Your task to perform on an android device: Open calendar and show me the first week of next month Image 0: 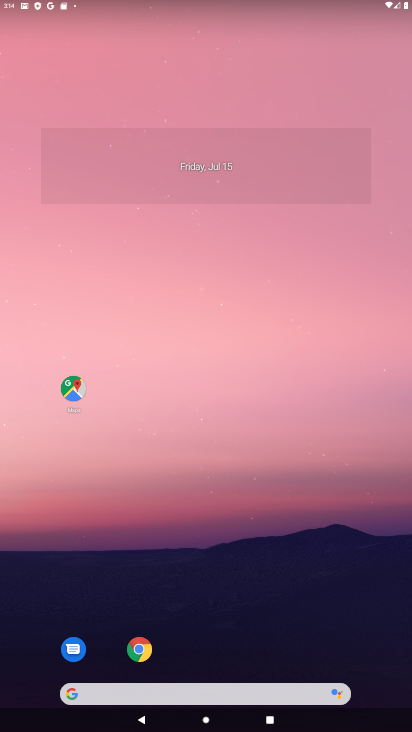
Step 0: drag from (204, 615) to (187, 199)
Your task to perform on an android device: Open calendar and show me the first week of next month Image 1: 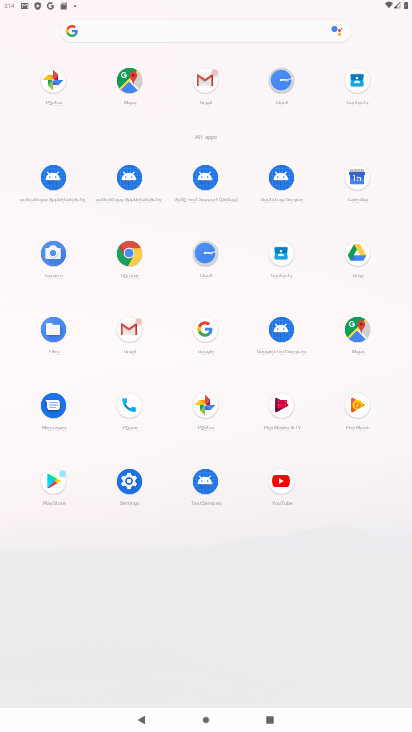
Step 1: click (351, 177)
Your task to perform on an android device: Open calendar and show me the first week of next month Image 2: 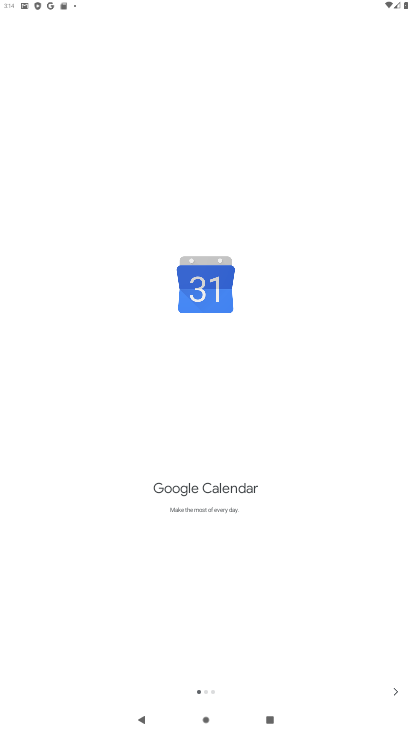
Step 2: click (389, 688)
Your task to perform on an android device: Open calendar and show me the first week of next month Image 3: 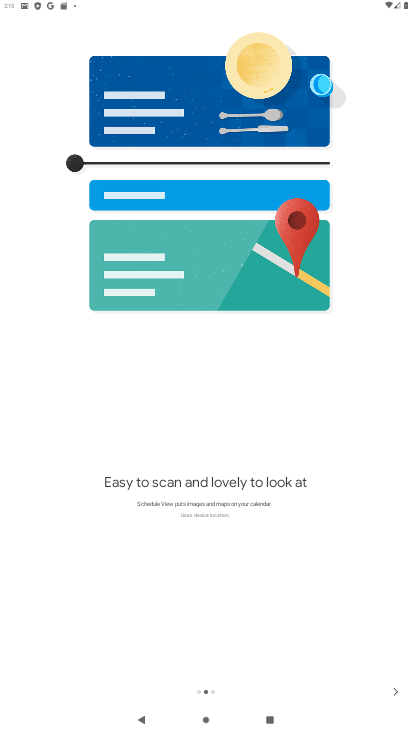
Step 3: click (389, 688)
Your task to perform on an android device: Open calendar and show me the first week of next month Image 4: 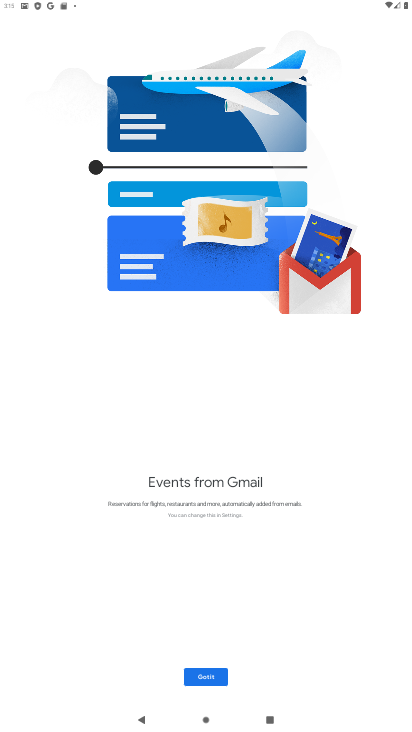
Step 4: click (389, 688)
Your task to perform on an android device: Open calendar and show me the first week of next month Image 5: 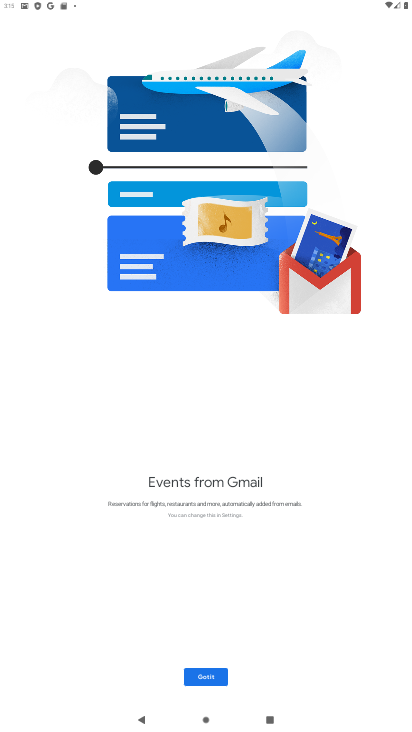
Step 5: click (223, 680)
Your task to perform on an android device: Open calendar and show me the first week of next month Image 6: 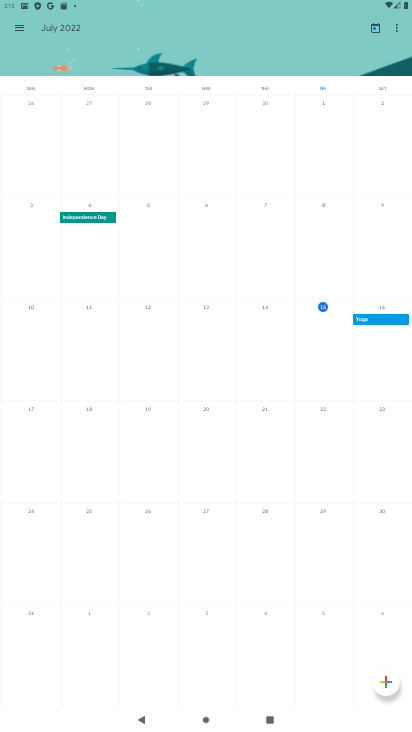
Step 6: click (82, 33)
Your task to perform on an android device: Open calendar and show me the first week of next month Image 7: 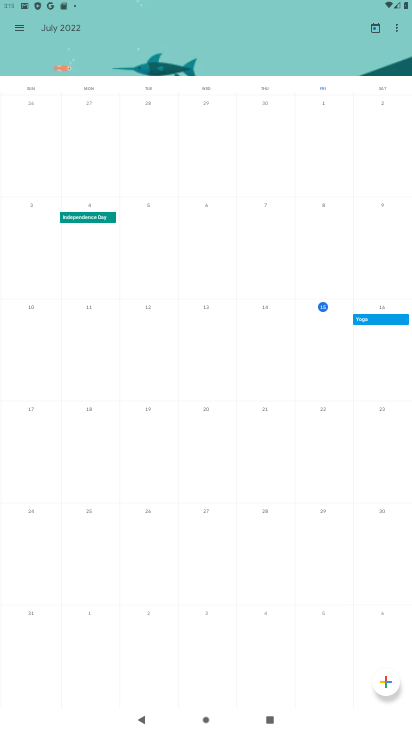
Step 7: click (84, 26)
Your task to perform on an android device: Open calendar and show me the first week of next month Image 8: 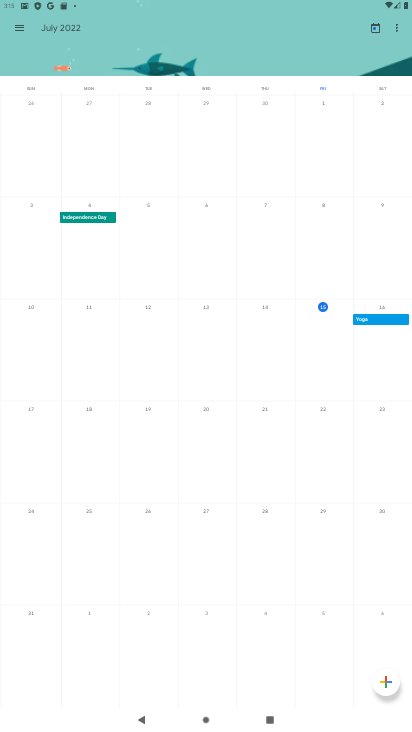
Step 8: click (69, 28)
Your task to perform on an android device: Open calendar and show me the first week of next month Image 9: 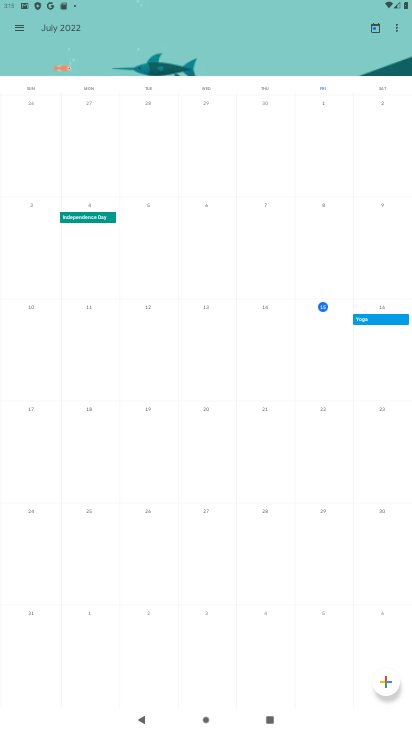
Step 9: click (81, 28)
Your task to perform on an android device: Open calendar and show me the first week of next month Image 10: 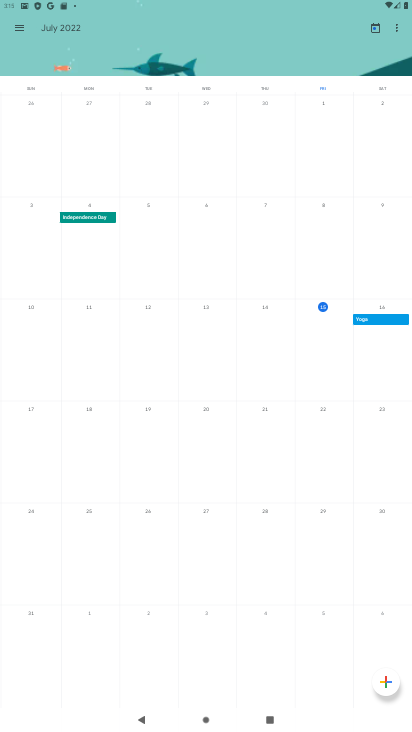
Step 10: click (81, 28)
Your task to perform on an android device: Open calendar and show me the first week of next month Image 11: 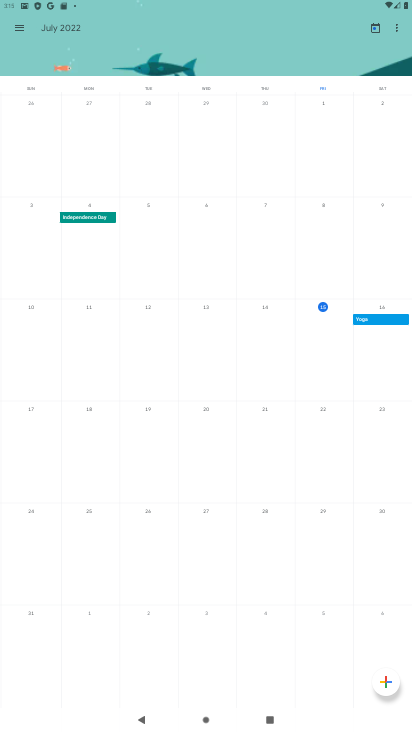
Step 11: click (52, 28)
Your task to perform on an android device: Open calendar and show me the first week of next month Image 12: 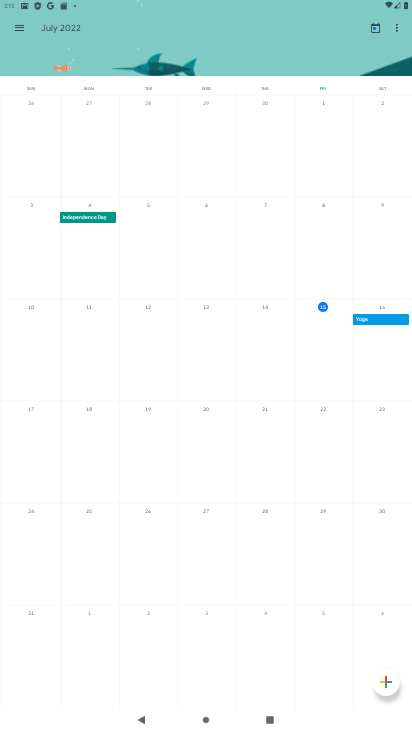
Step 12: click (61, 30)
Your task to perform on an android device: Open calendar and show me the first week of next month Image 13: 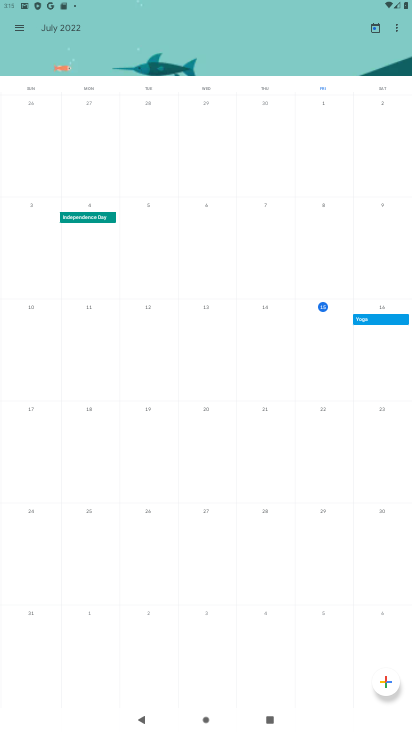
Step 13: click (72, 30)
Your task to perform on an android device: Open calendar and show me the first week of next month Image 14: 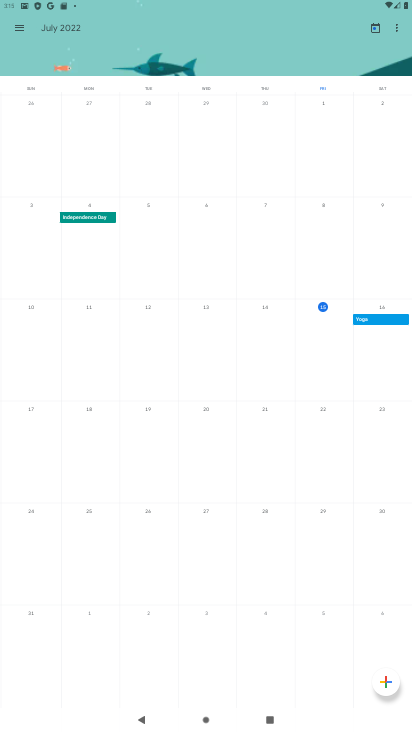
Step 14: click (86, 31)
Your task to perform on an android device: Open calendar and show me the first week of next month Image 15: 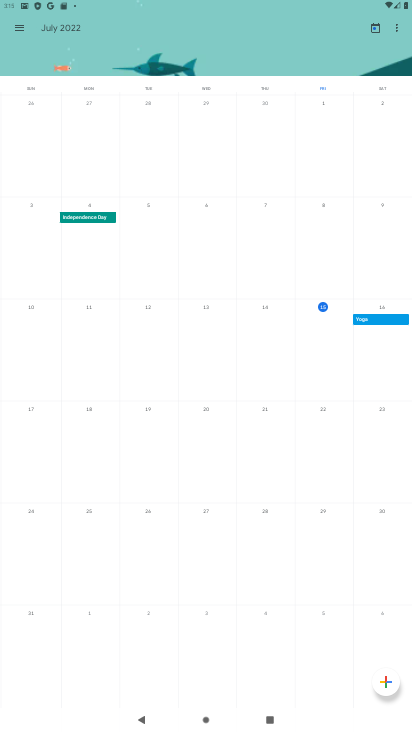
Step 15: click (86, 24)
Your task to perform on an android device: Open calendar and show me the first week of next month Image 16: 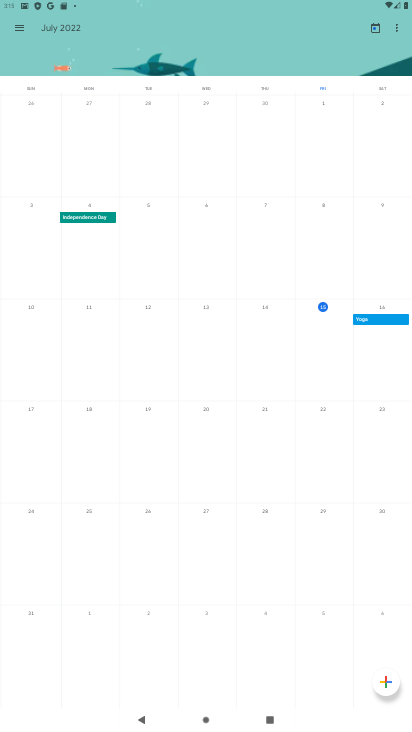
Step 16: click (86, 33)
Your task to perform on an android device: Open calendar and show me the first week of next month Image 17: 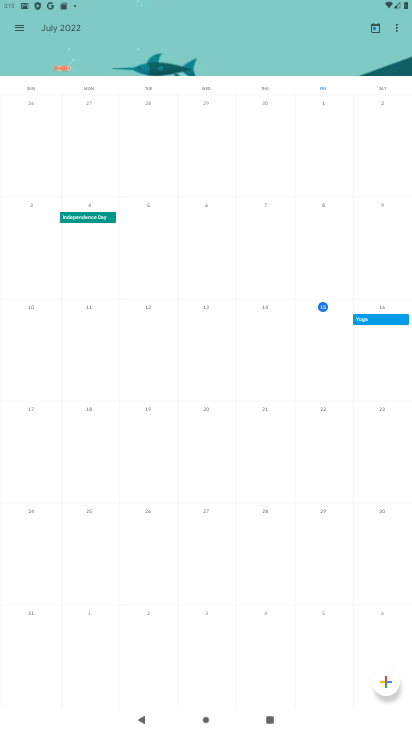
Step 17: click (16, 24)
Your task to perform on an android device: Open calendar and show me the first week of next month Image 18: 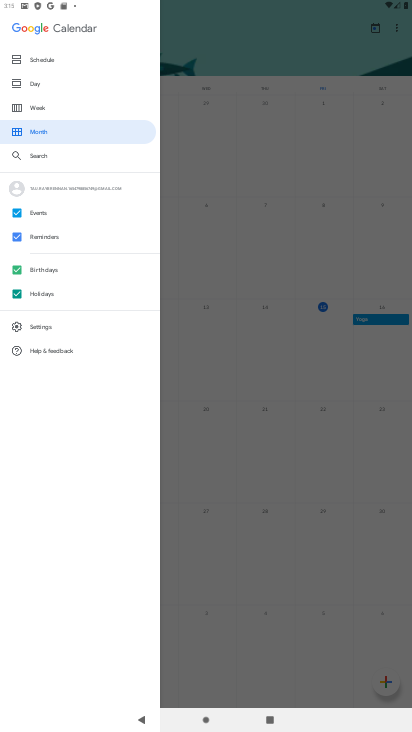
Step 18: click (172, 59)
Your task to perform on an android device: Open calendar and show me the first week of next month Image 19: 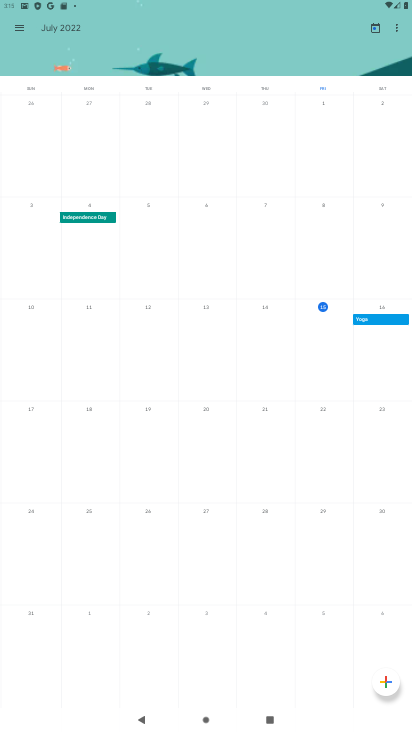
Step 19: drag from (357, 181) to (35, 186)
Your task to perform on an android device: Open calendar and show me the first week of next month Image 20: 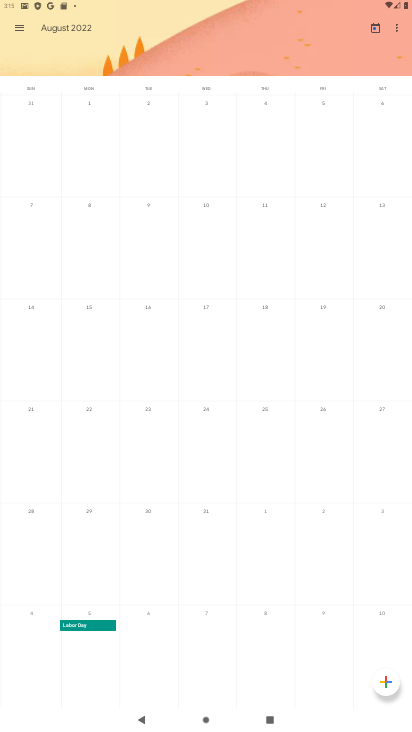
Step 20: click (95, 123)
Your task to perform on an android device: Open calendar and show me the first week of next month Image 21: 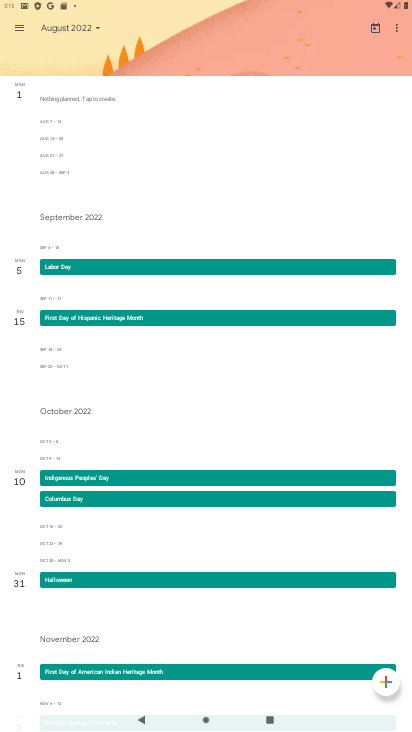
Step 21: task complete